Your task to perform on an android device: Open calendar and show me the third week of next month Image 0: 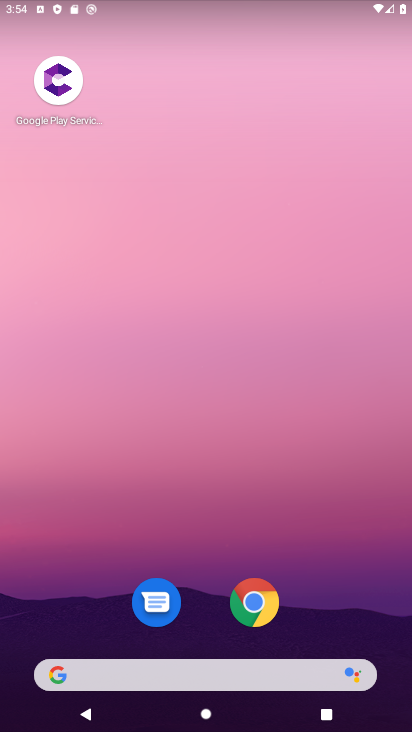
Step 0: drag from (316, 526) to (332, 86)
Your task to perform on an android device: Open calendar and show me the third week of next month Image 1: 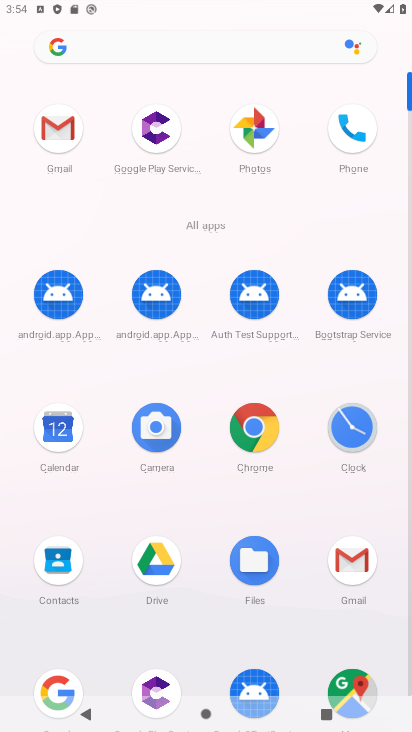
Step 1: click (65, 423)
Your task to perform on an android device: Open calendar and show me the third week of next month Image 2: 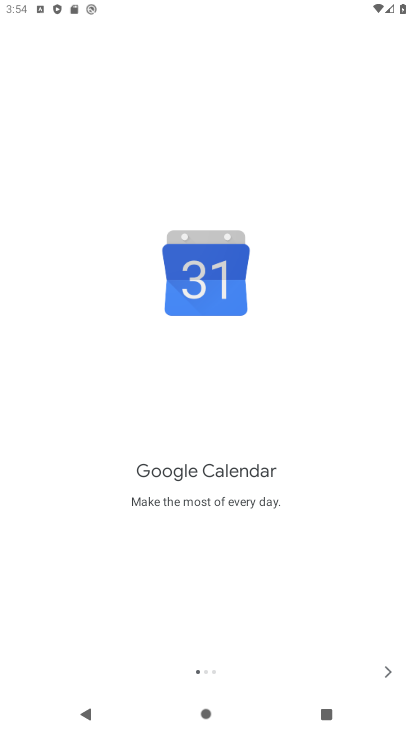
Step 2: click (381, 666)
Your task to perform on an android device: Open calendar and show me the third week of next month Image 3: 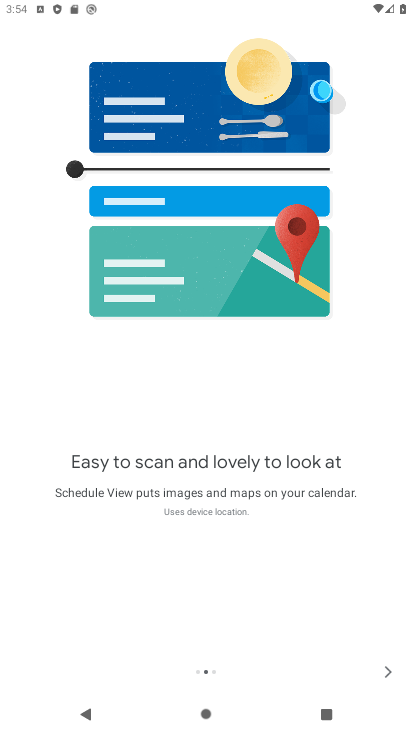
Step 3: click (381, 666)
Your task to perform on an android device: Open calendar and show me the third week of next month Image 4: 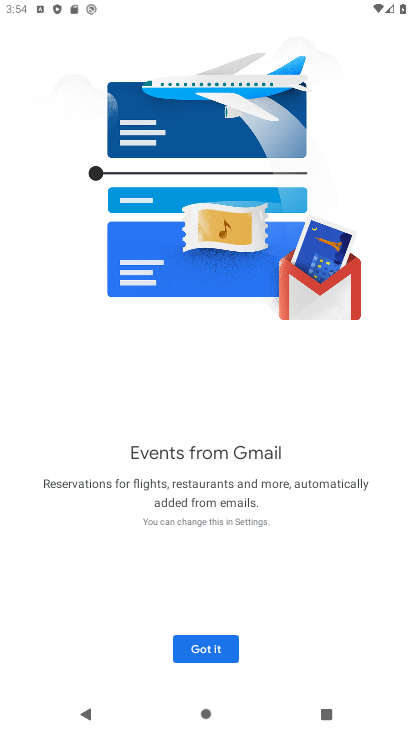
Step 4: click (231, 643)
Your task to perform on an android device: Open calendar and show me the third week of next month Image 5: 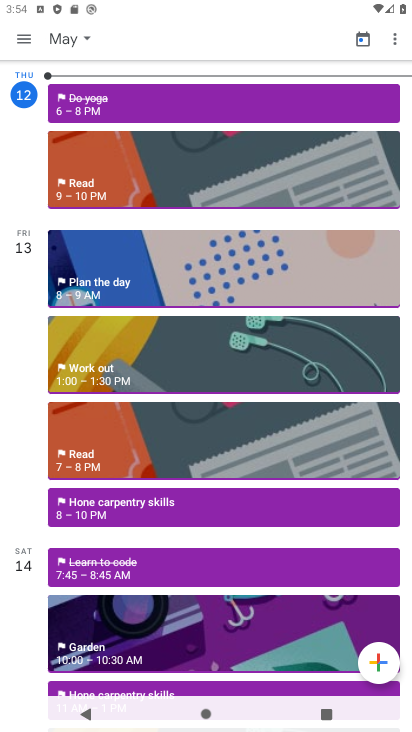
Step 5: click (27, 39)
Your task to perform on an android device: Open calendar and show me the third week of next month Image 6: 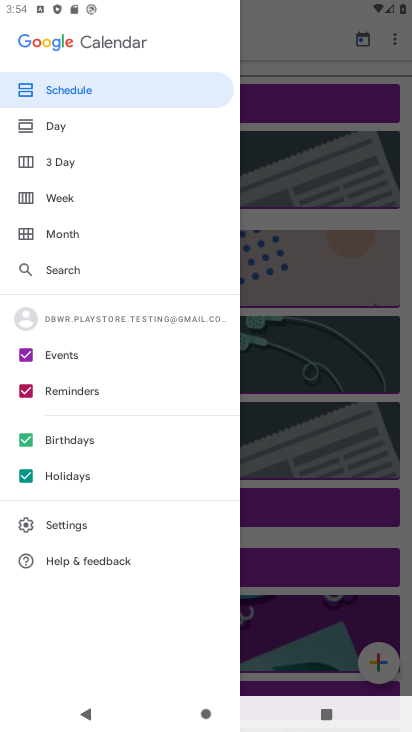
Step 6: click (67, 227)
Your task to perform on an android device: Open calendar and show me the third week of next month Image 7: 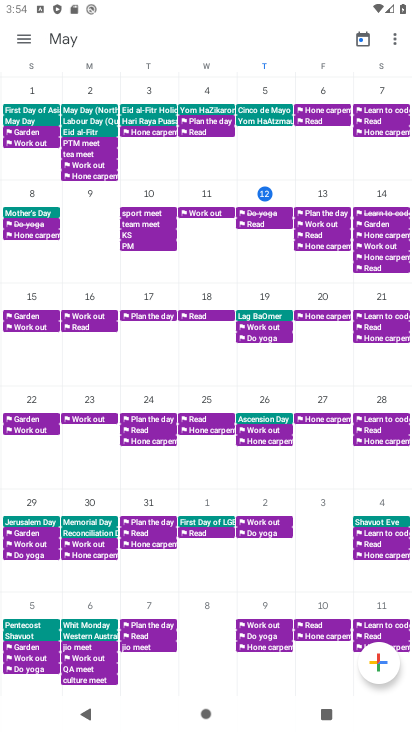
Step 7: drag from (383, 375) to (1, 347)
Your task to perform on an android device: Open calendar and show me the third week of next month Image 8: 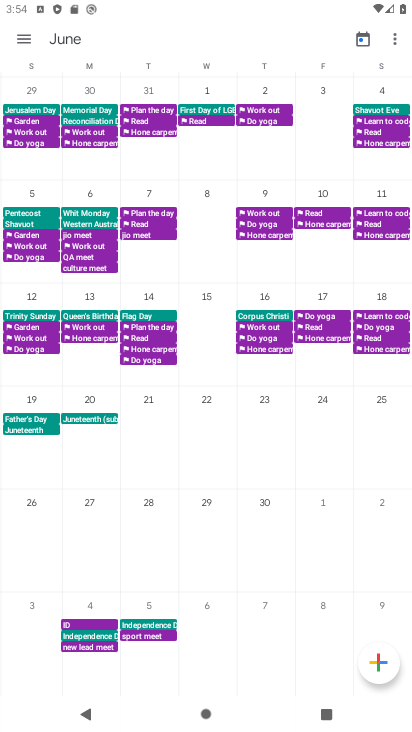
Step 8: click (42, 406)
Your task to perform on an android device: Open calendar and show me the third week of next month Image 9: 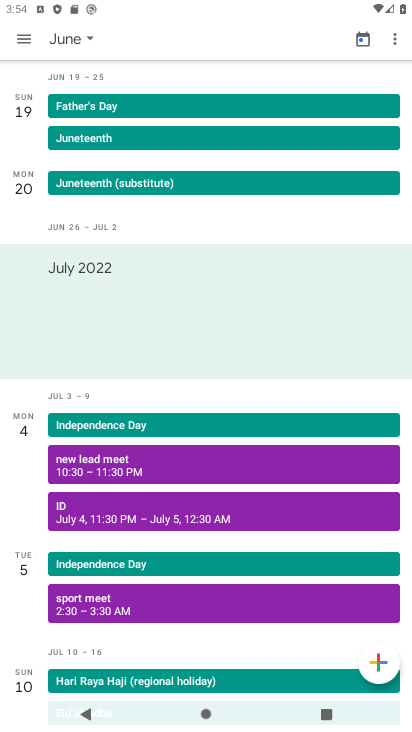
Step 9: click (15, 26)
Your task to perform on an android device: Open calendar and show me the third week of next month Image 10: 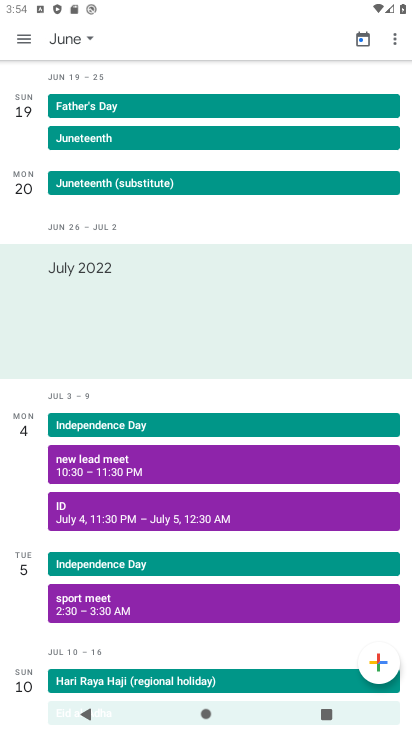
Step 10: click (28, 33)
Your task to perform on an android device: Open calendar and show me the third week of next month Image 11: 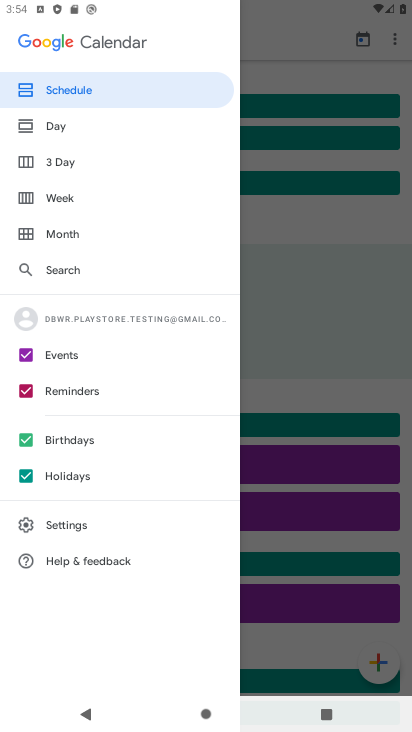
Step 11: click (72, 187)
Your task to perform on an android device: Open calendar and show me the third week of next month Image 12: 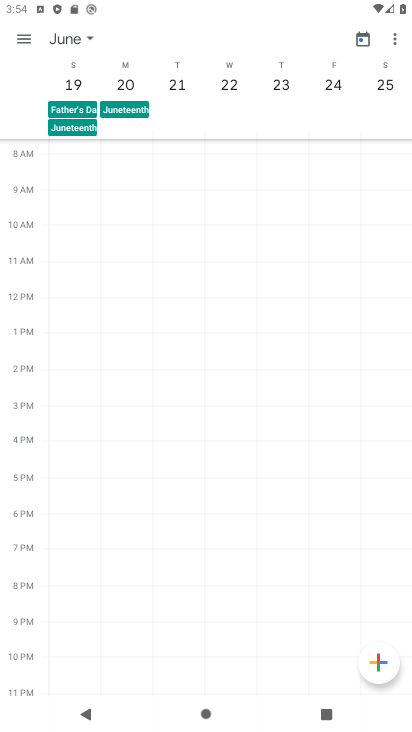
Step 12: task complete